Your task to perform on an android device: Go to settings Image 0: 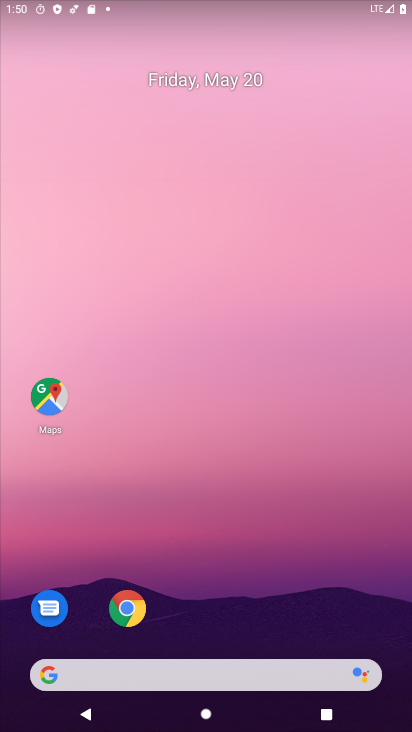
Step 0: drag from (254, 595) to (204, 195)
Your task to perform on an android device: Go to settings Image 1: 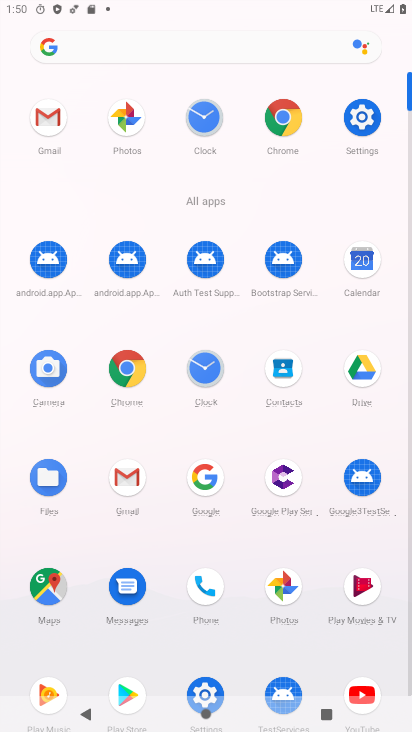
Step 1: click (361, 118)
Your task to perform on an android device: Go to settings Image 2: 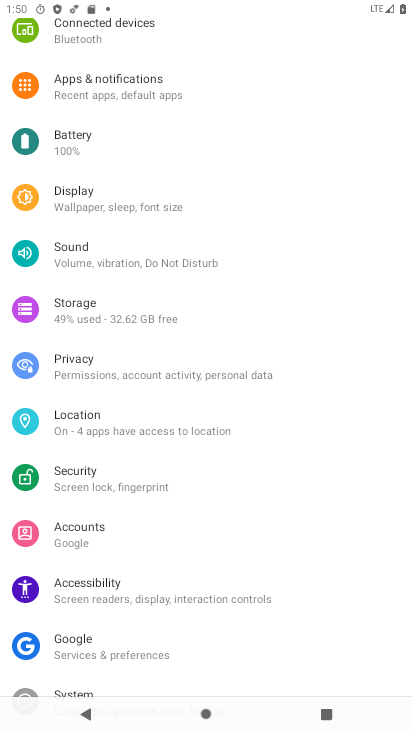
Step 2: task complete